Your task to perform on an android device: Search for "macbook" on bestbuy.com, select the first entry, and add it to the cart. Image 0: 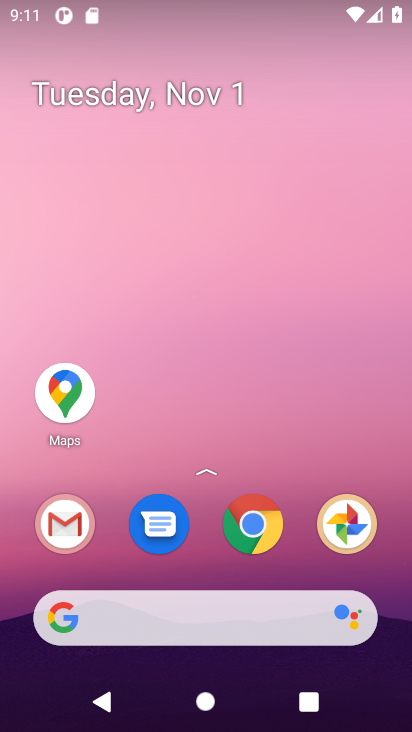
Step 0: press home button
Your task to perform on an android device: Search for "macbook" on bestbuy.com, select the first entry, and add it to the cart. Image 1: 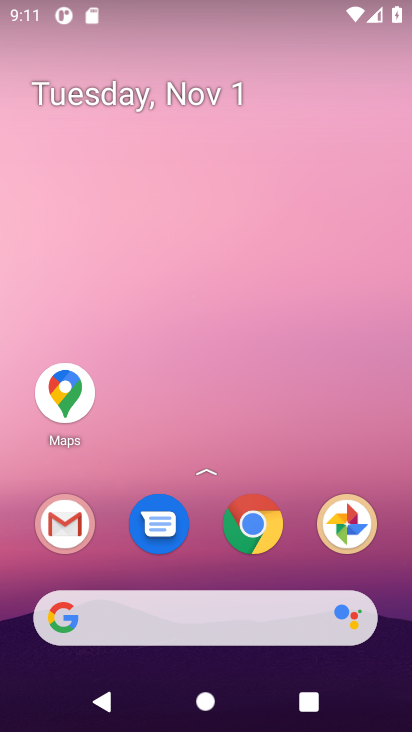
Step 1: click (99, 618)
Your task to perform on an android device: Search for "macbook" on bestbuy.com, select the first entry, and add it to the cart. Image 2: 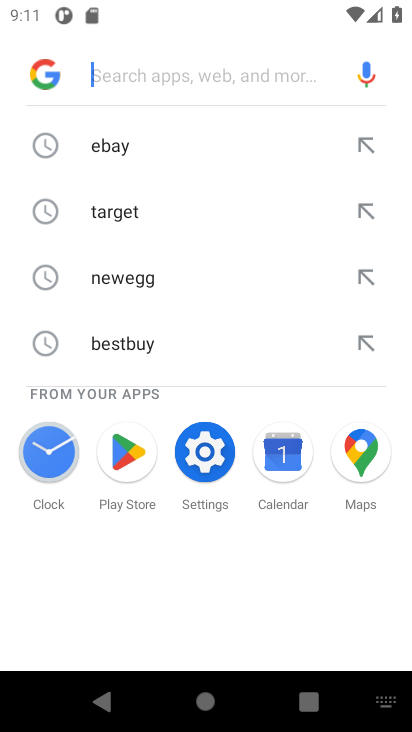
Step 2: press enter
Your task to perform on an android device: Search for "macbook" on bestbuy.com, select the first entry, and add it to the cart. Image 3: 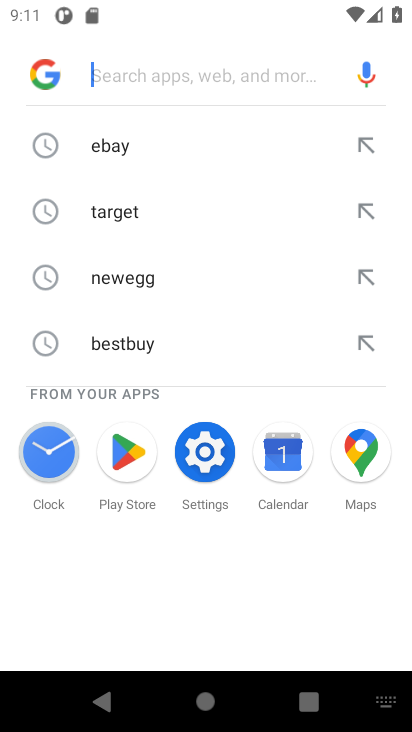
Step 3: type "bestbuy.com"
Your task to perform on an android device: Search for "macbook" on bestbuy.com, select the first entry, and add it to the cart. Image 4: 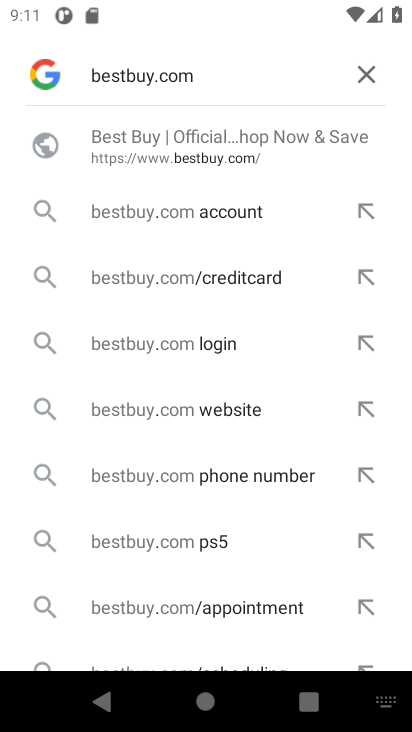
Step 4: press enter
Your task to perform on an android device: Search for "macbook" on bestbuy.com, select the first entry, and add it to the cart. Image 5: 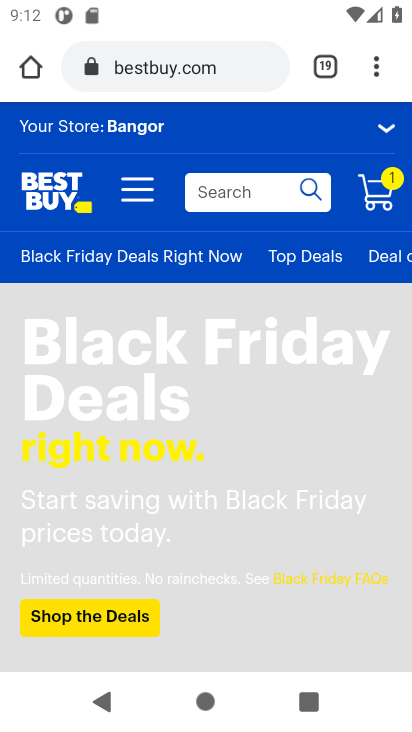
Step 5: click (210, 183)
Your task to perform on an android device: Search for "macbook" on bestbuy.com, select the first entry, and add it to the cart. Image 6: 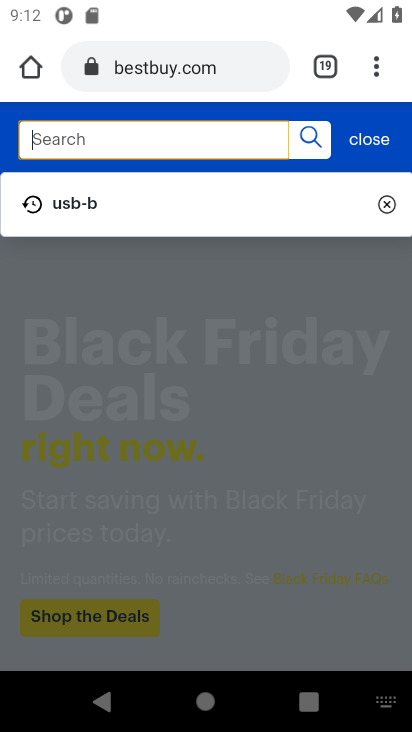
Step 6: type "macbook"
Your task to perform on an android device: Search for "macbook" on bestbuy.com, select the first entry, and add it to the cart. Image 7: 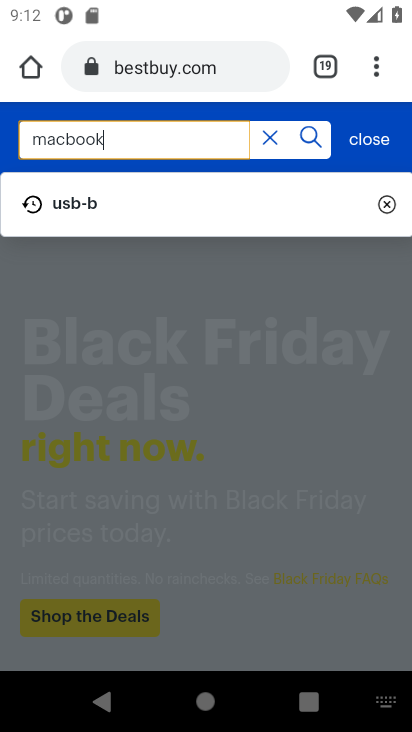
Step 7: press enter
Your task to perform on an android device: Search for "macbook" on bestbuy.com, select the first entry, and add it to the cart. Image 8: 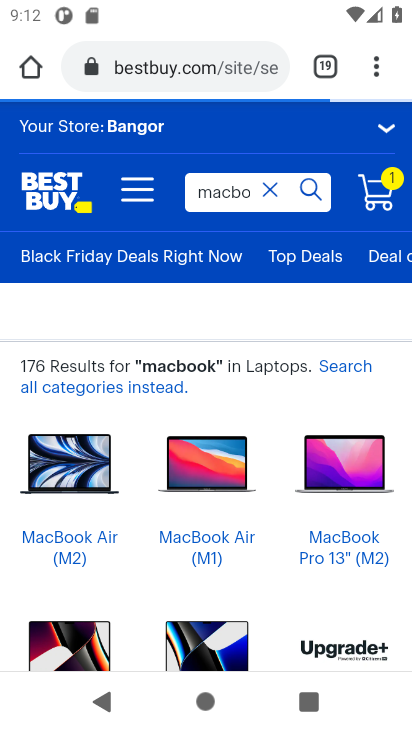
Step 8: drag from (256, 536) to (257, 294)
Your task to perform on an android device: Search for "macbook" on bestbuy.com, select the first entry, and add it to the cart. Image 9: 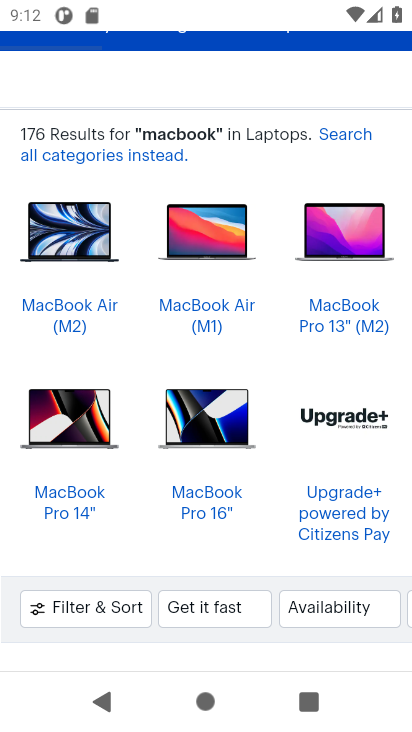
Step 9: drag from (241, 607) to (245, 224)
Your task to perform on an android device: Search for "macbook" on bestbuy.com, select the first entry, and add it to the cart. Image 10: 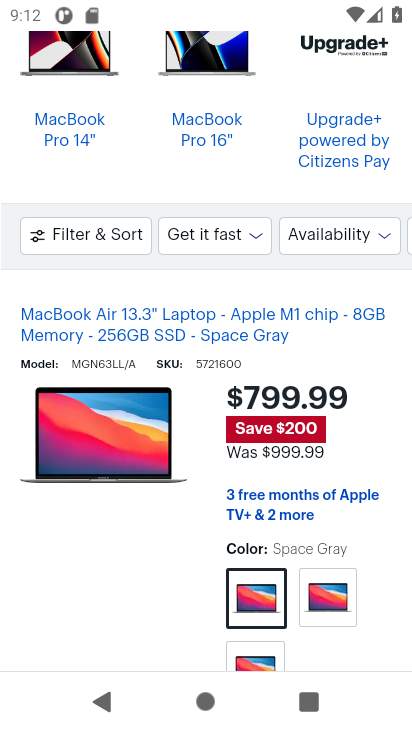
Step 10: drag from (186, 540) to (185, 300)
Your task to perform on an android device: Search for "macbook" on bestbuy.com, select the first entry, and add it to the cart. Image 11: 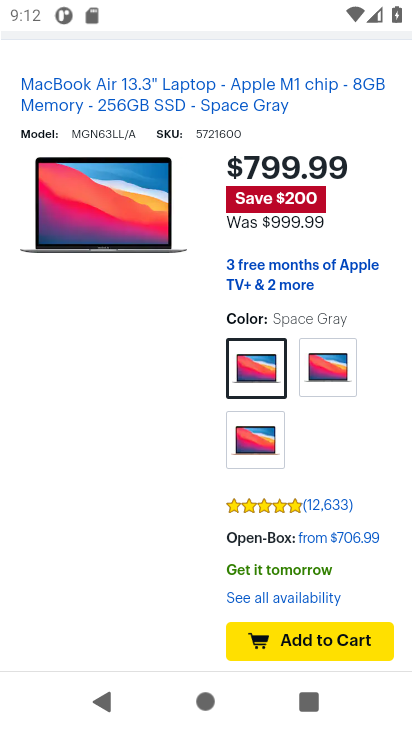
Step 11: drag from (156, 562) to (167, 309)
Your task to perform on an android device: Search for "macbook" on bestbuy.com, select the first entry, and add it to the cart. Image 12: 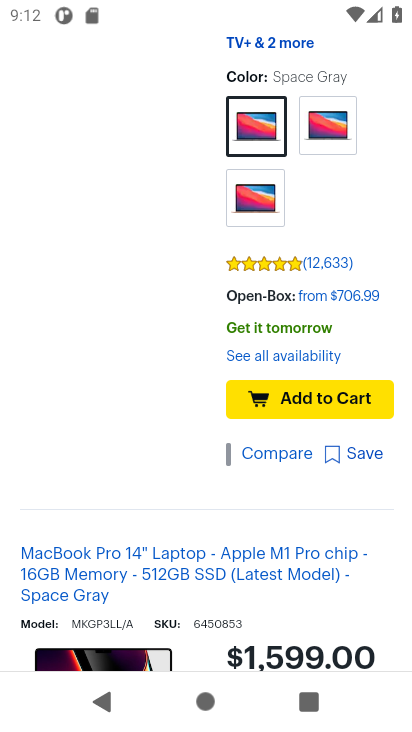
Step 12: click (317, 398)
Your task to perform on an android device: Search for "macbook" on bestbuy.com, select the first entry, and add it to the cart. Image 13: 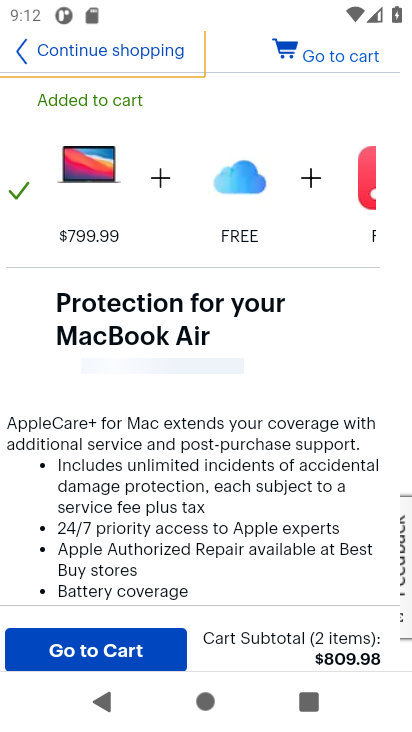
Step 13: task complete